Your task to perform on an android device: turn off javascript in the chrome app Image 0: 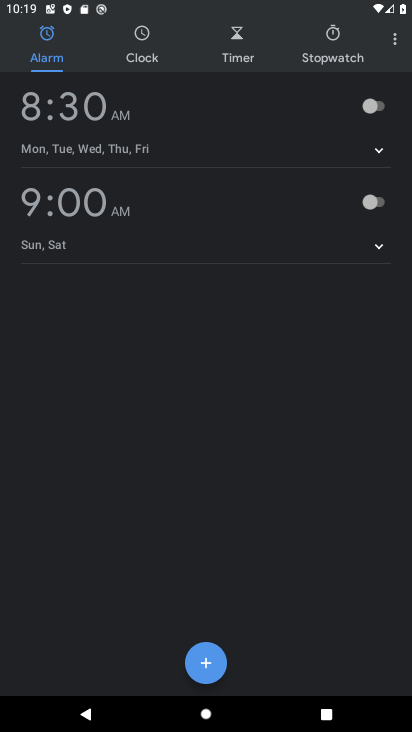
Step 0: press home button
Your task to perform on an android device: turn off javascript in the chrome app Image 1: 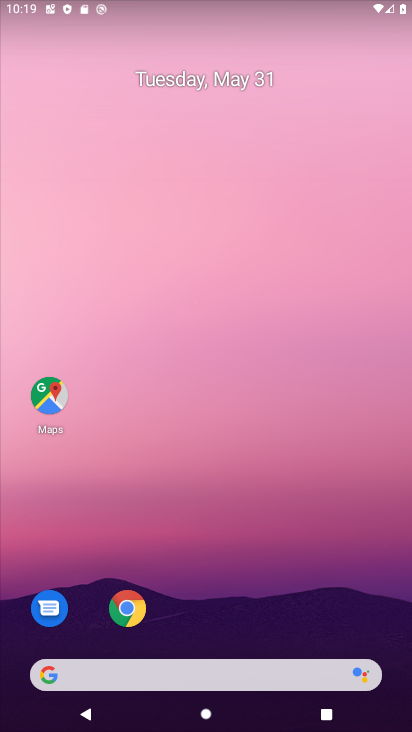
Step 1: drag from (164, 648) to (138, 33)
Your task to perform on an android device: turn off javascript in the chrome app Image 2: 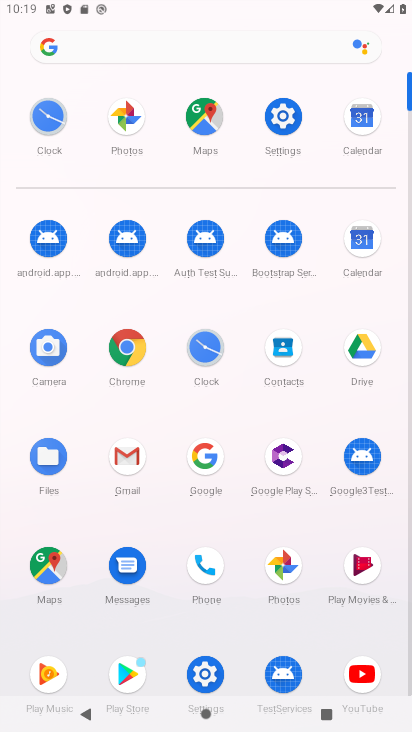
Step 2: click (140, 349)
Your task to perform on an android device: turn off javascript in the chrome app Image 3: 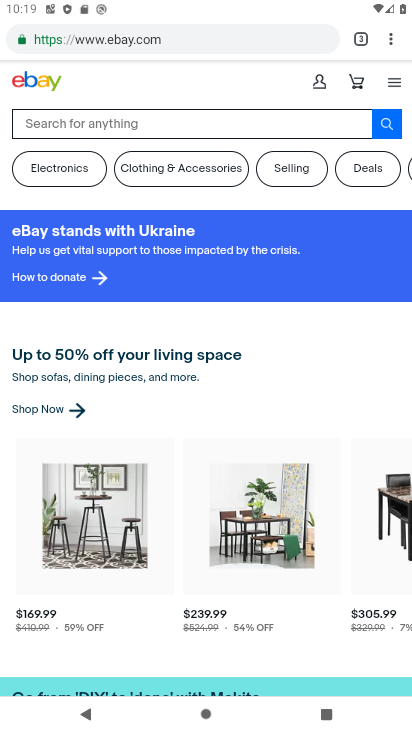
Step 3: drag from (387, 38) to (252, 517)
Your task to perform on an android device: turn off javascript in the chrome app Image 4: 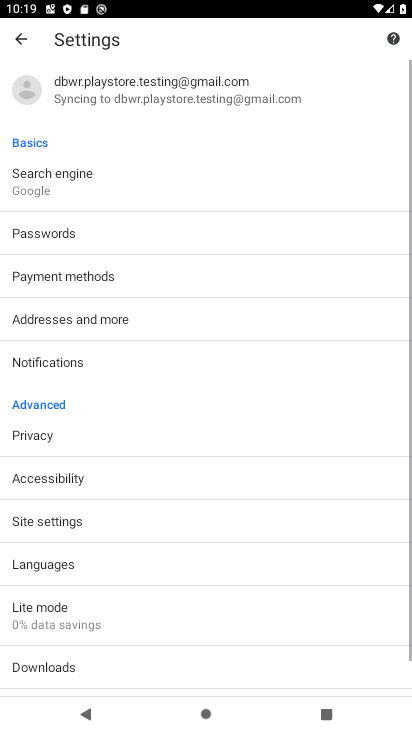
Step 4: drag from (190, 603) to (193, 427)
Your task to perform on an android device: turn off javascript in the chrome app Image 5: 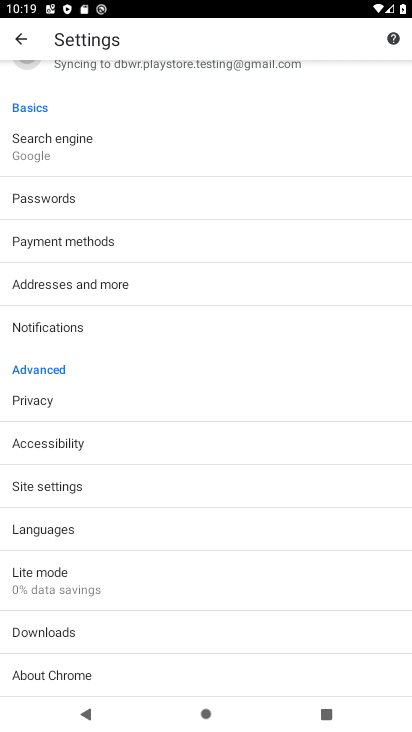
Step 5: click (53, 485)
Your task to perform on an android device: turn off javascript in the chrome app Image 6: 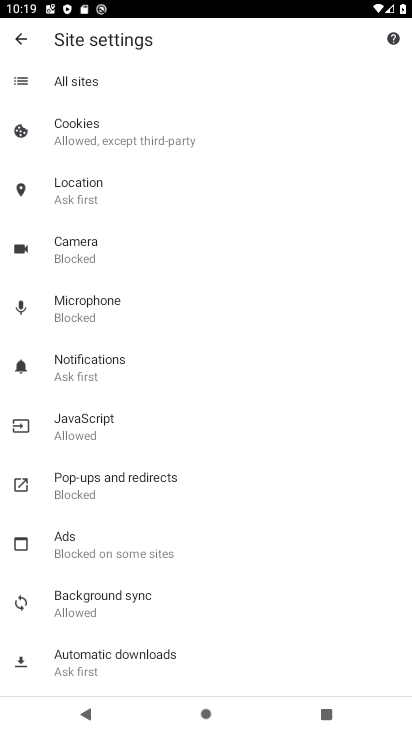
Step 6: click (82, 431)
Your task to perform on an android device: turn off javascript in the chrome app Image 7: 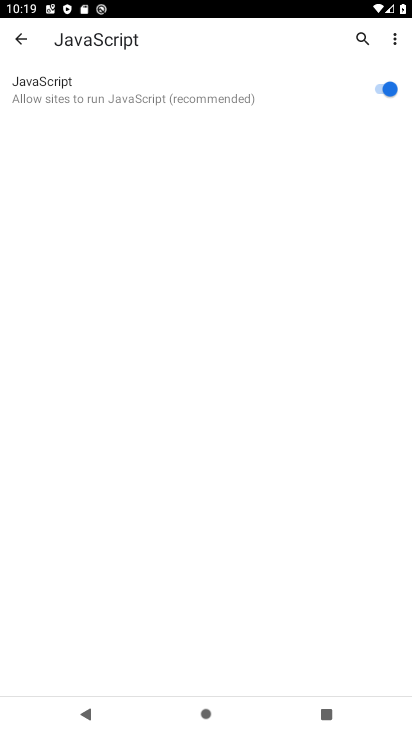
Step 7: click (391, 78)
Your task to perform on an android device: turn off javascript in the chrome app Image 8: 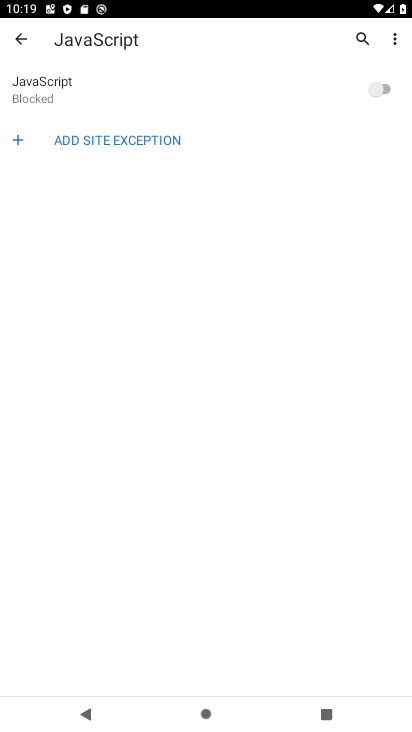
Step 8: task complete